Your task to perform on an android device: Open the calendar app, open the side menu, and click the "Day" option Image 0: 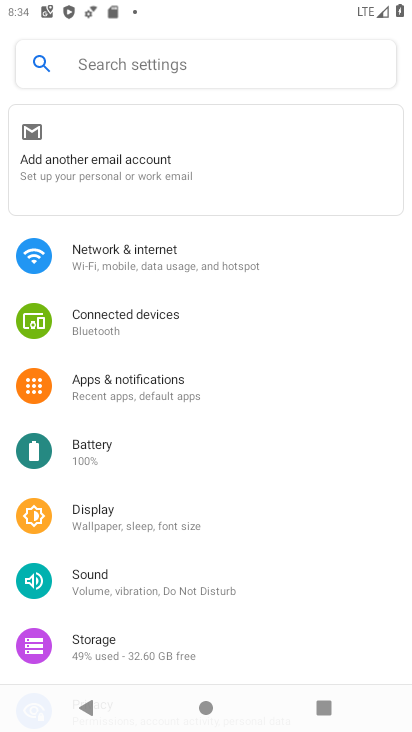
Step 0: press home button
Your task to perform on an android device: Open the calendar app, open the side menu, and click the "Day" option Image 1: 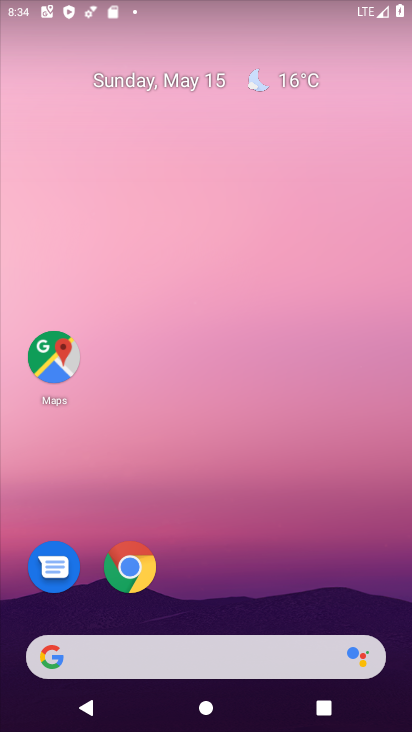
Step 1: drag from (212, 644) to (247, 99)
Your task to perform on an android device: Open the calendar app, open the side menu, and click the "Day" option Image 2: 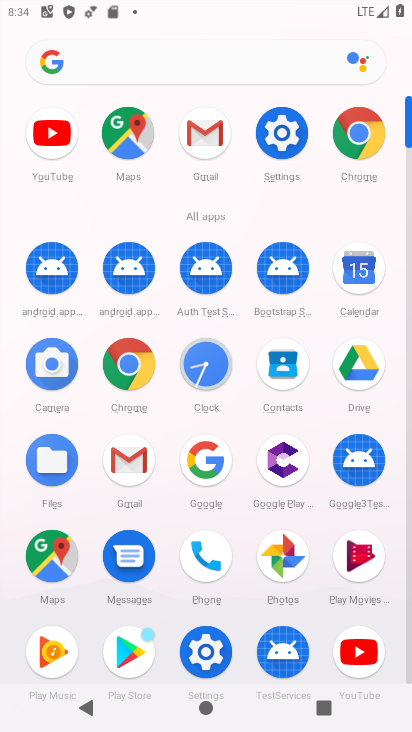
Step 2: click (360, 279)
Your task to perform on an android device: Open the calendar app, open the side menu, and click the "Day" option Image 3: 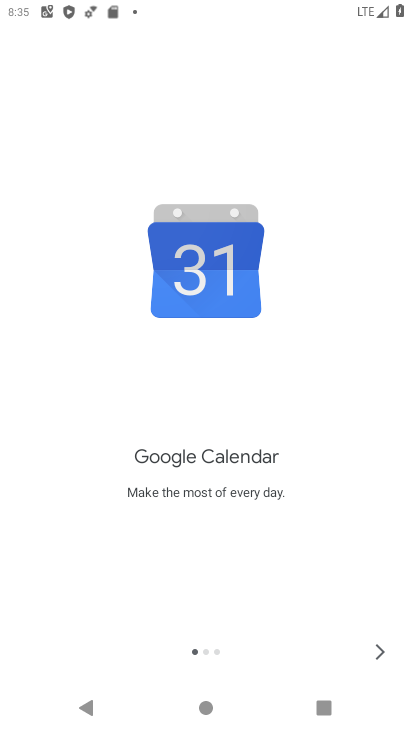
Step 3: click (374, 645)
Your task to perform on an android device: Open the calendar app, open the side menu, and click the "Day" option Image 4: 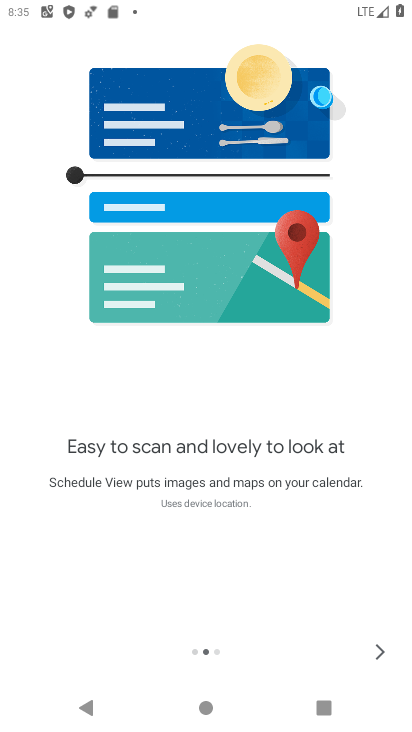
Step 4: click (374, 645)
Your task to perform on an android device: Open the calendar app, open the side menu, and click the "Day" option Image 5: 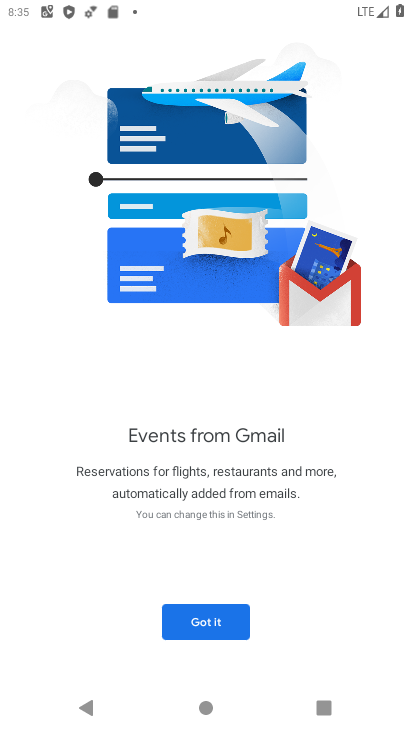
Step 5: click (374, 645)
Your task to perform on an android device: Open the calendar app, open the side menu, and click the "Day" option Image 6: 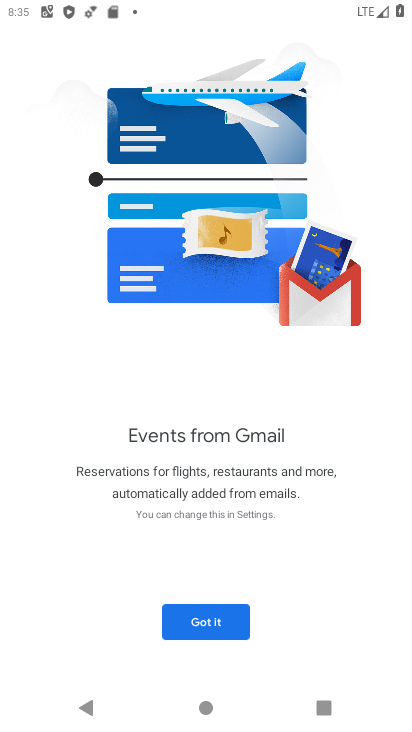
Step 6: click (202, 621)
Your task to perform on an android device: Open the calendar app, open the side menu, and click the "Day" option Image 7: 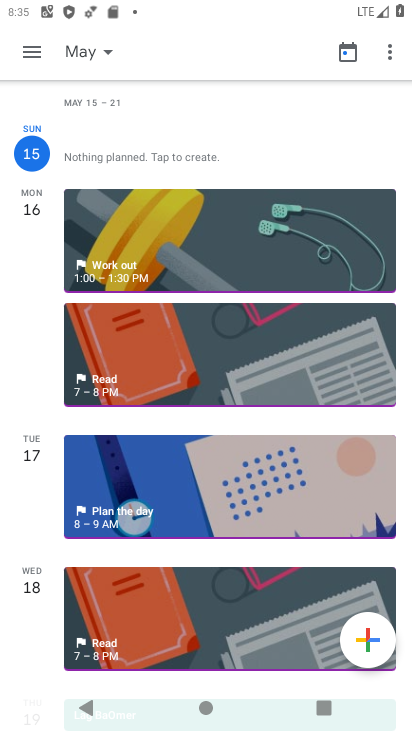
Step 7: click (31, 56)
Your task to perform on an android device: Open the calendar app, open the side menu, and click the "Day" option Image 8: 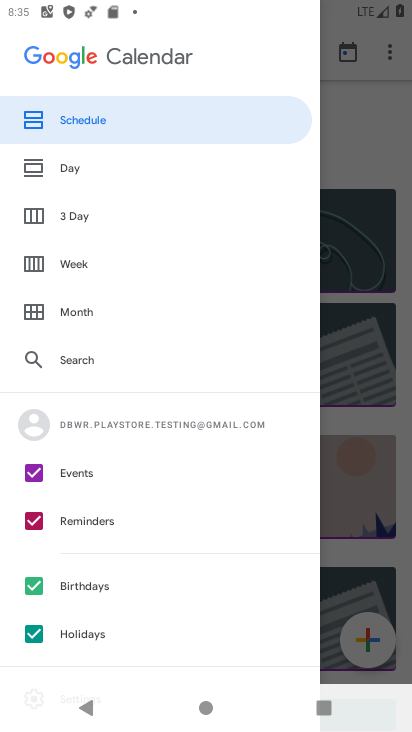
Step 8: click (77, 164)
Your task to perform on an android device: Open the calendar app, open the side menu, and click the "Day" option Image 9: 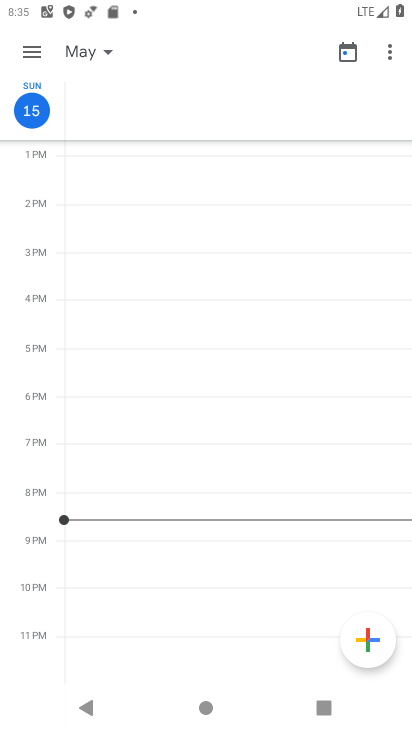
Step 9: click (22, 49)
Your task to perform on an android device: Open the calendar app, open the side menu, and click the "Day" option Image 10: 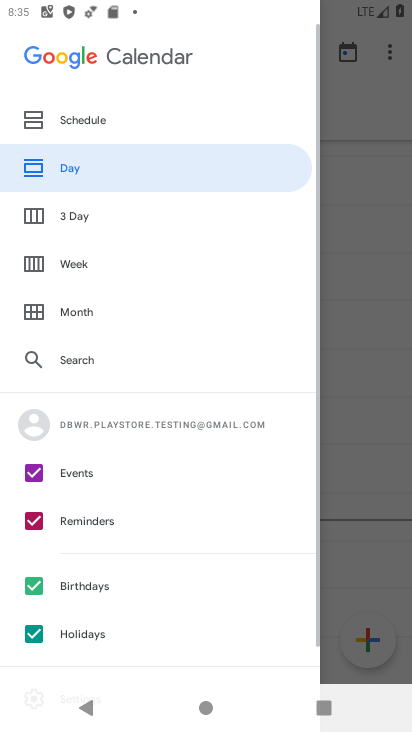
Step 10: click (103, 176)
Your task to perform on an android device: Open the calendar app, open the side menu, and click the "Day" option Image 11: 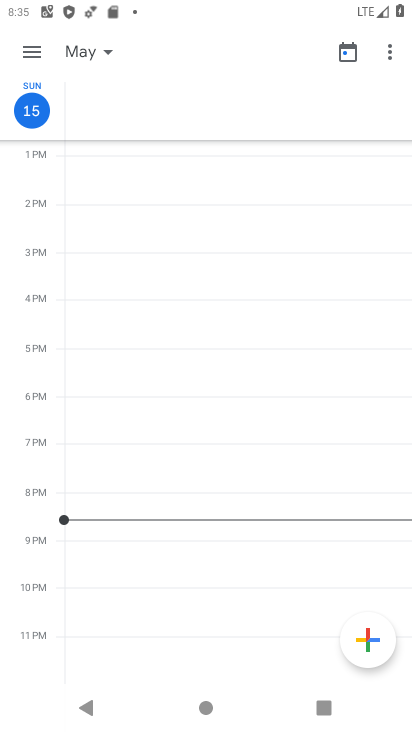
Step 11: task complete